Your task to perform on an android device: open sync settings in chrome Image 0: 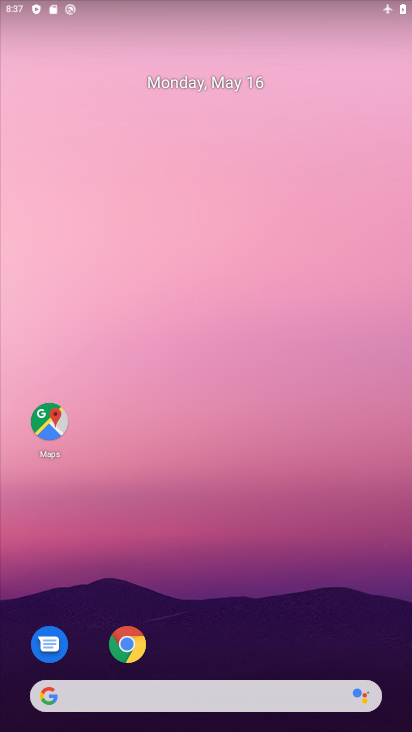
Step 0: drag from (196, 729) to (312, 0)
Your task to perform on an android device: open sync settings in chrome Image 1: 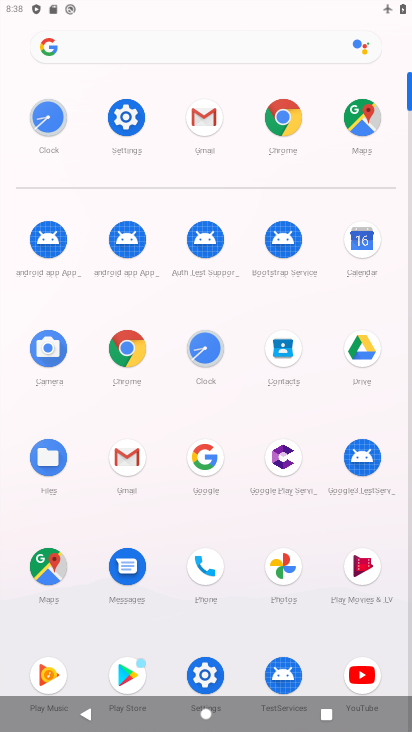
Step 1: click (285, 115)
Your task to perform on an android device: open sync settings in chrome Image 2: 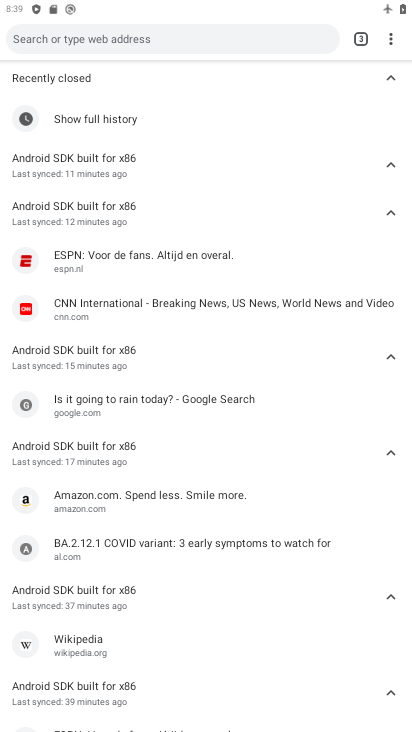
Step 2: click (390, 43)
Your task to perform on an android device: open sync settings in chrome Image 3: 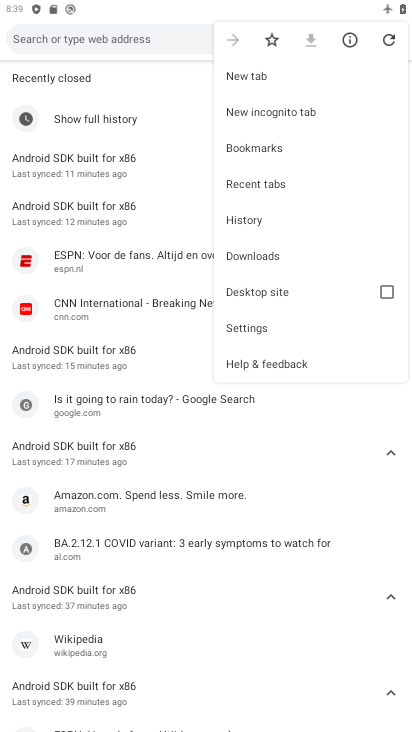
Step 3: click (269, 324)
Your task to perform on an android device: open sync settings in chrome Image 4: 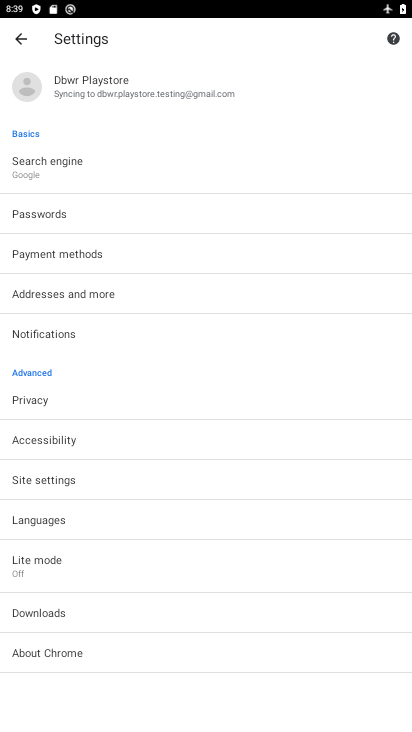
Step 4: click (189, 93)
Your task to perform on an android device: open sync settings in chrome Image 5: 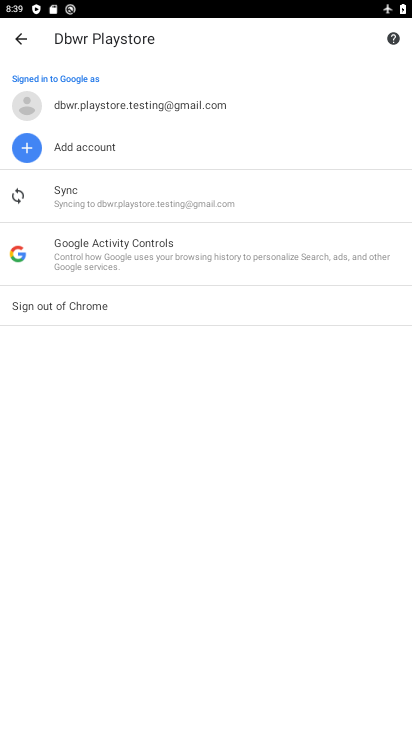
Step 5: task complete